Your task to perform on an android device: Open Chrome and go to settings Image 0: 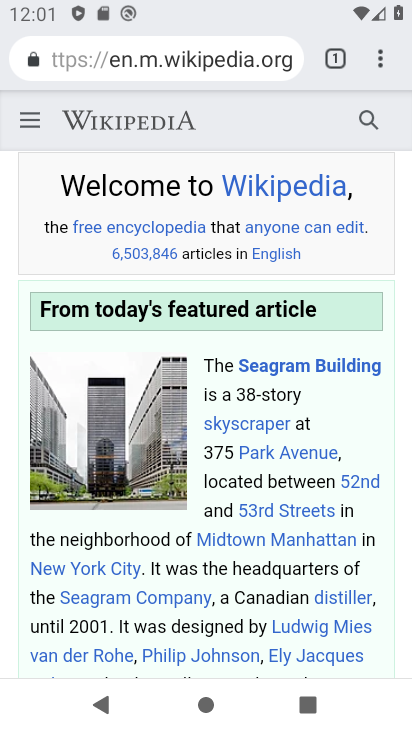
Step 0: press home button
Your task to perform on an android device: Open Chrome and go to settings Image 1: 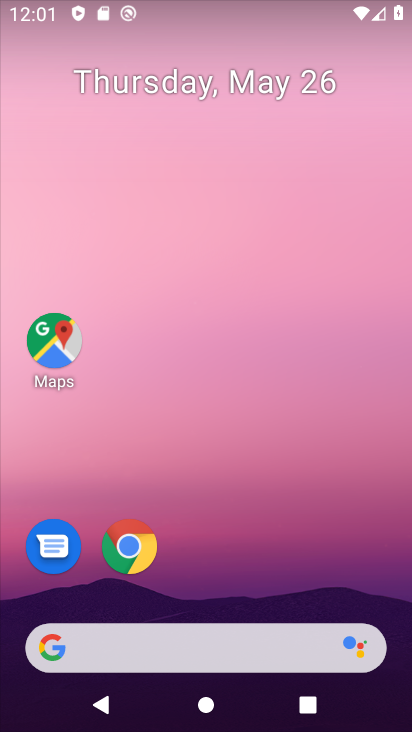
Step 1: drag from (398, 627) to (274, 3)
Your task to perform on an android device: Open Chrome and go to settings Image 2: 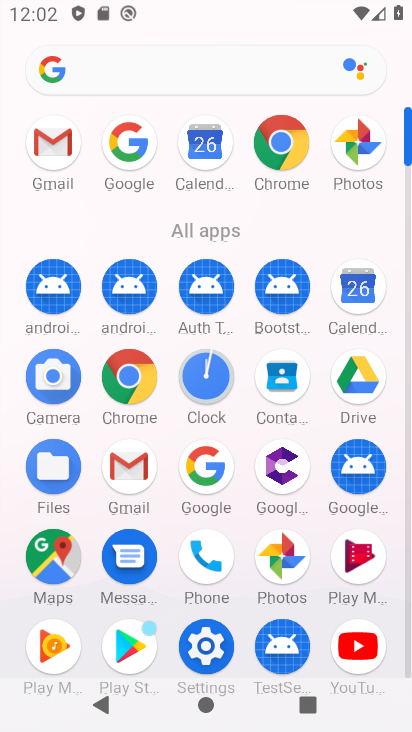
Step 2: click (114, 388)
Your task to perform on an android device: Open Chrome and go to settings Image 3: 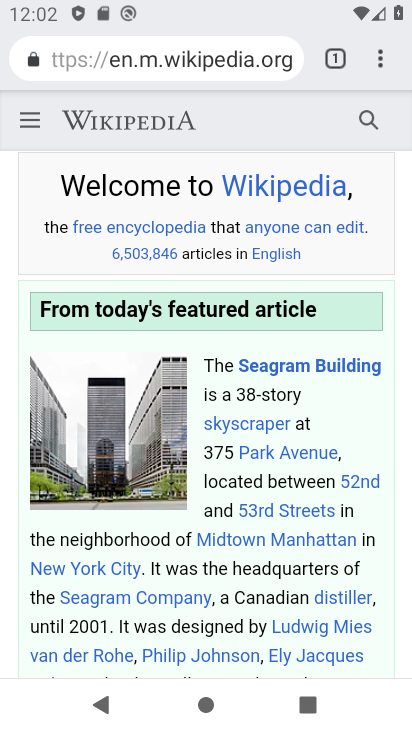
Step 3: press back button
Your task to perform on an android device: Open Chrome and go to settings Image 4: 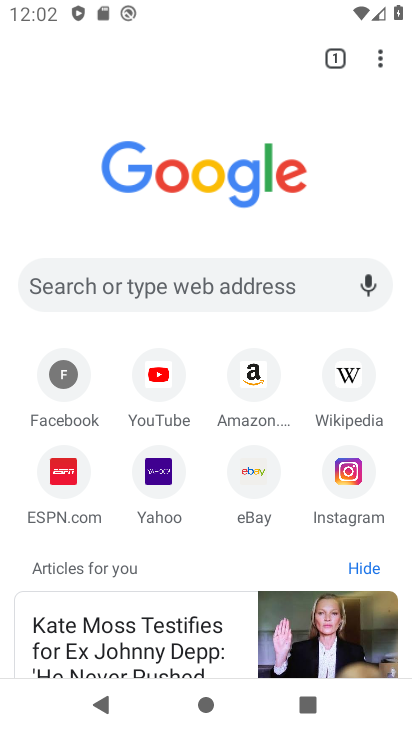
Step 4: click (378, 60)
Your task to perform on an android device: Open Chrome and go to settings Image 5: 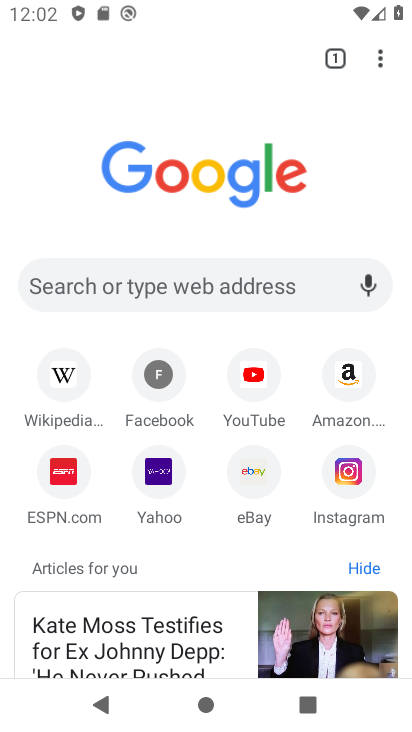
Step 5: click (380, 45)
Your task to perform on an android device: Open Chrome and go to settings Image 6: 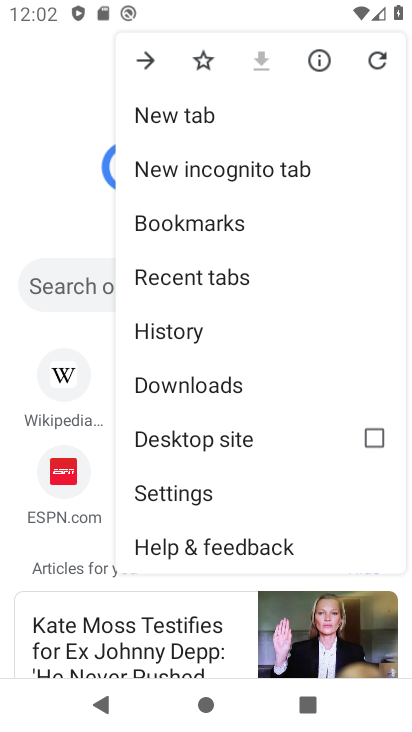
Step 6: click (204, 496)
Your task to perform on an android device: Open Chrome and go to settings Image 7: 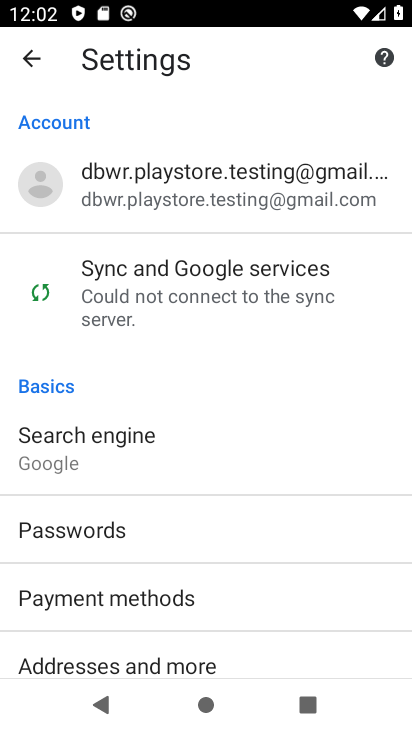
Step 7: task complete